Your task to perform on an android device: Go to internet settings Image 0: 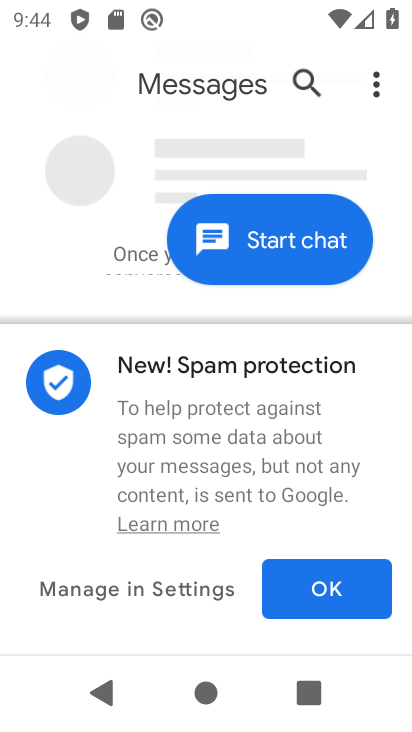
Step 0: press home button
Your task to perform on an android device: Go to internet settings Image 1: 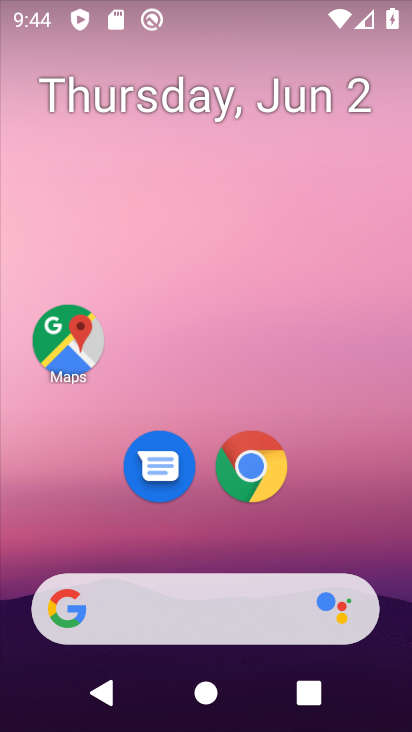
Step 1: drag from (48, 567) to (230, 87)
Your task to perform on an android device: Go to internet settings Image 2: 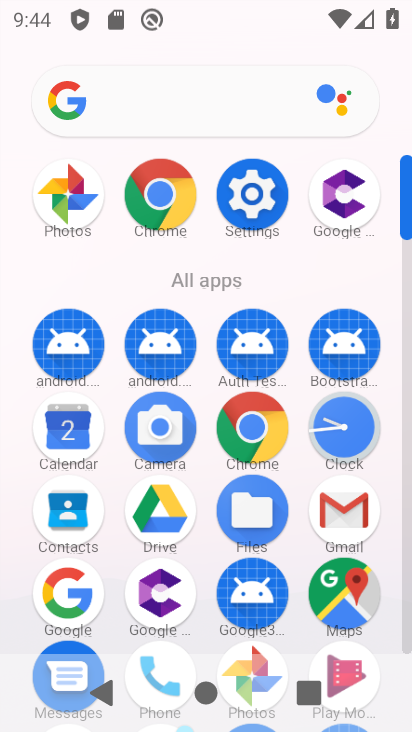
Step 2: drag from (213, 546) to (274, 281)
Your task to perform on an android device: Go to internet settings Image 3: 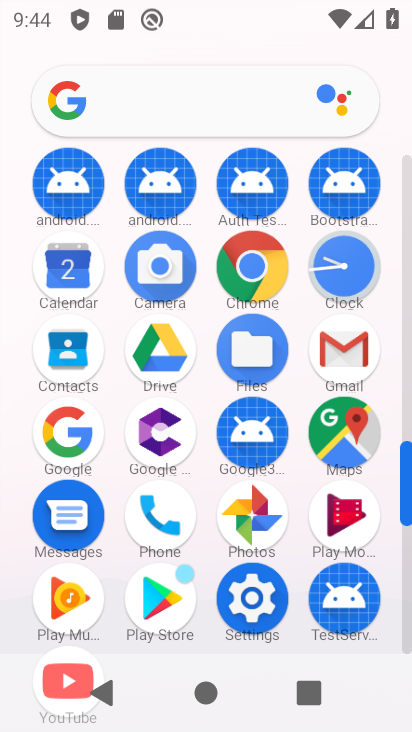
Step 3: click (249, 607)
Your task to perform on an android device: Go to internet settings Image 4: 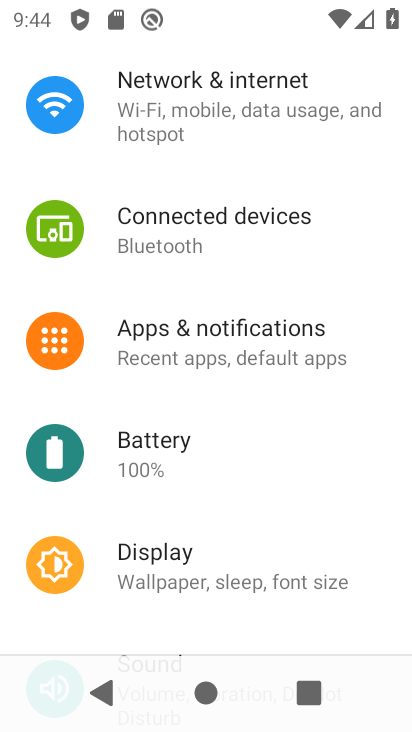
Step 4: drag from (279, 154) to (275, 386)
Your task to perform on an android device: Go to internet settings Image 5: 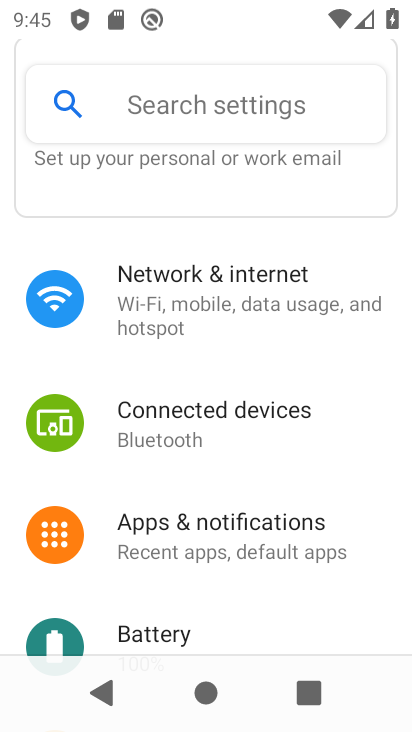
Step 5: click (250, 315)
Your task to perform on an android device: Go to internet settings Image 6: 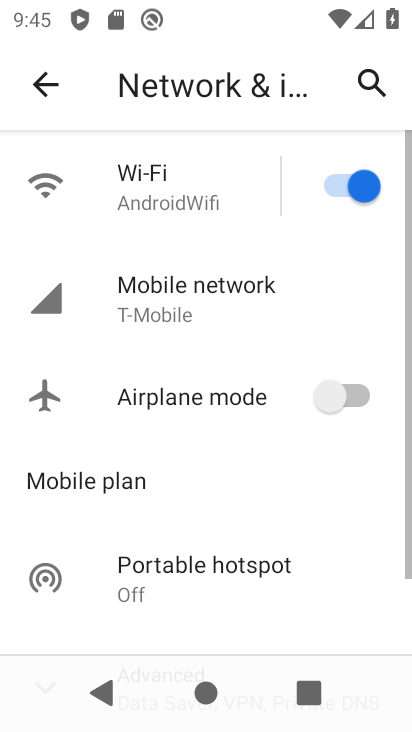
Step 6: click (250, 315)
Your task to perform on an android device: Go to internet settings Image 7: 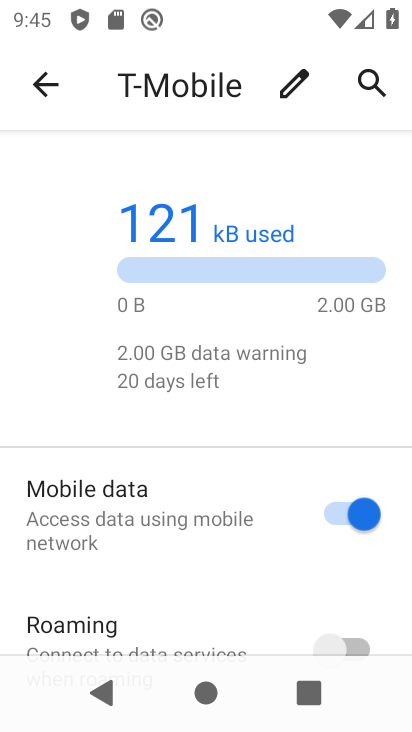
Step 7: task complete